Your task to perform on an android device: Go to settings Image 0: 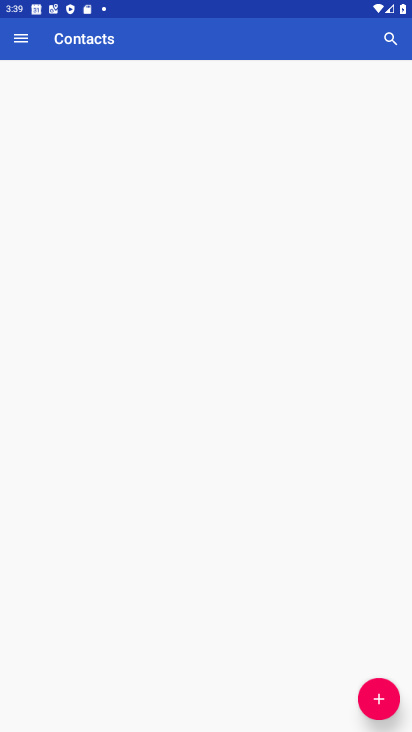
Step 0: click (230, 129)
Your task to perform on an android device: Go to settings Image 1: 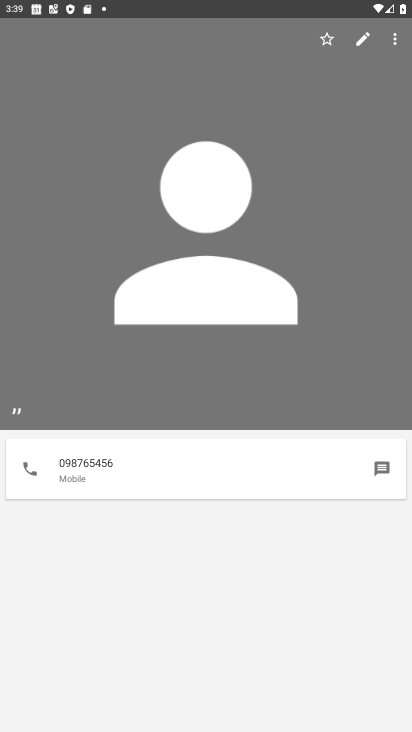
Step 1: press home button
Your task to perform on an android device: Go to settings Image 2: 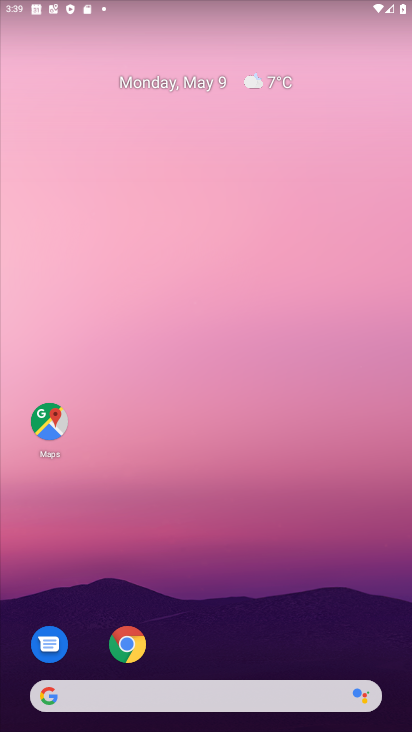
Step 2: drag from (259, 663) to (166, 1)
Your task to perform on an android device: Go to settings Image 3: 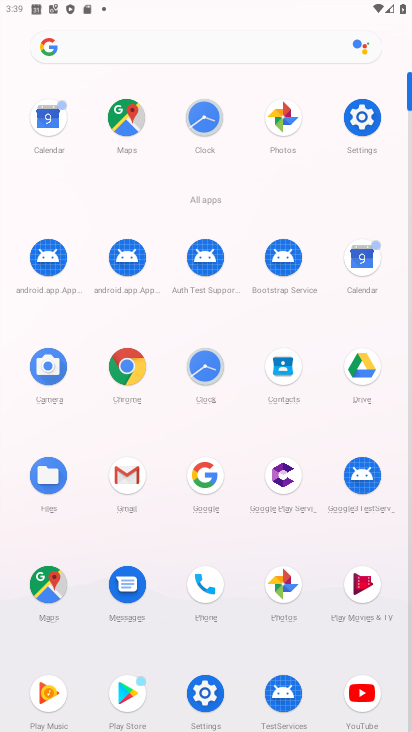
Step 3: click (355, 123)
Your task to perform on an android device: Go to settings Image 4: 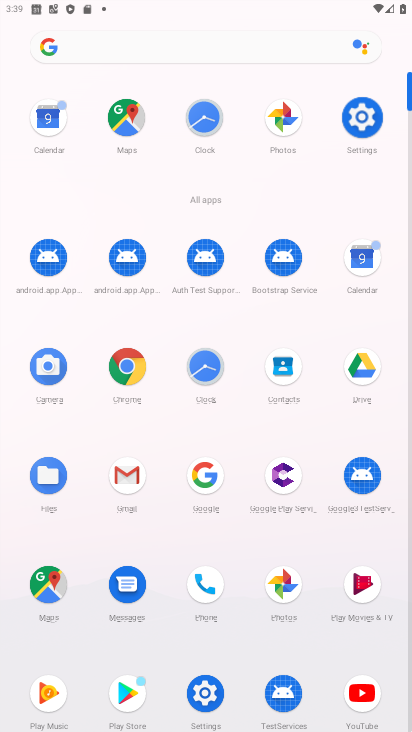
Step 4: click (357, 122)
Your task to perform on an android device: Go to settings Image 5: 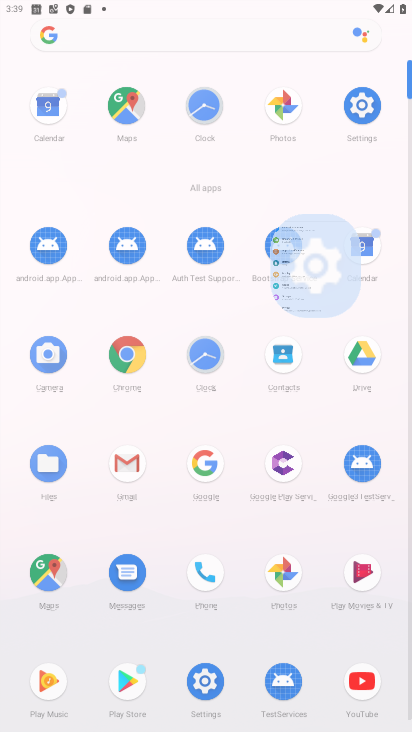
Step 5: click (357, 122)
Your task to perform on an android device: Go to settings Image 6: 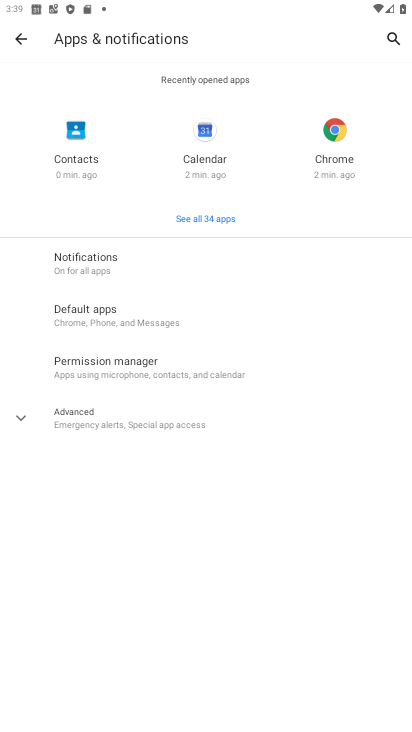
Step 6: click (14, 37)
Your task to perform on an android device: Go to settings Image 7: 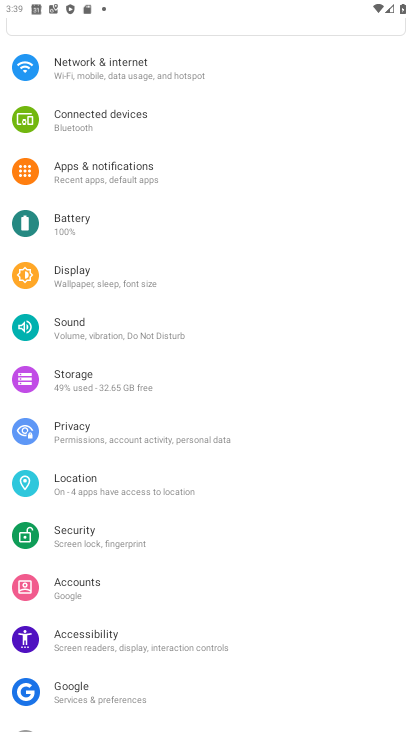
Step 7: task complete